Your task to perform on an android device: turn pop-ups on in chrome Image 0: 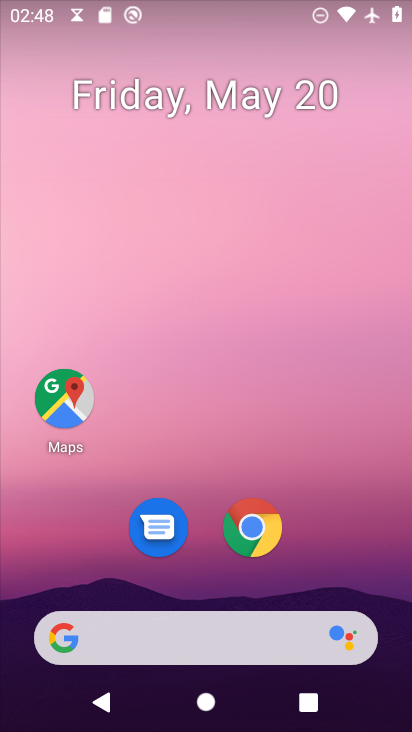
Step 0: press home button
Your task to perform on an android device: turn pop-ups on in chrome Image 1: 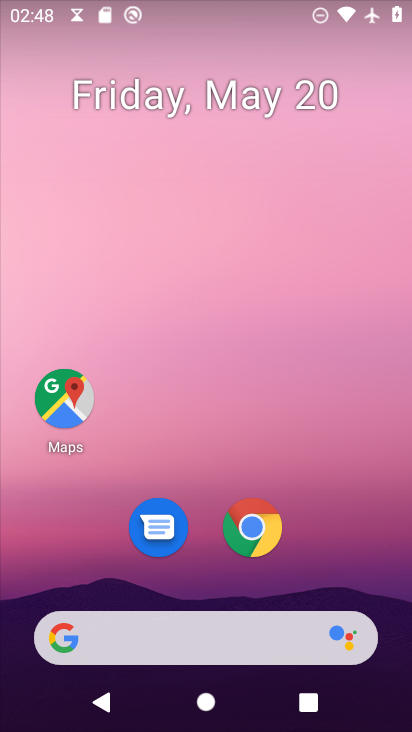
Step 1: click (254, 546)
Your task to perform on an android device: turn pop-ups on in chrome Image 2: 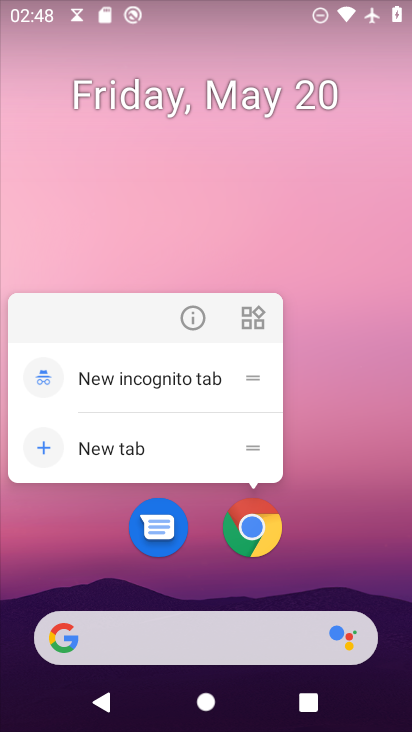
Step 2: click (254, 538)
Your task to perform on an android device: turn pop-ups on in chrome Image 3: 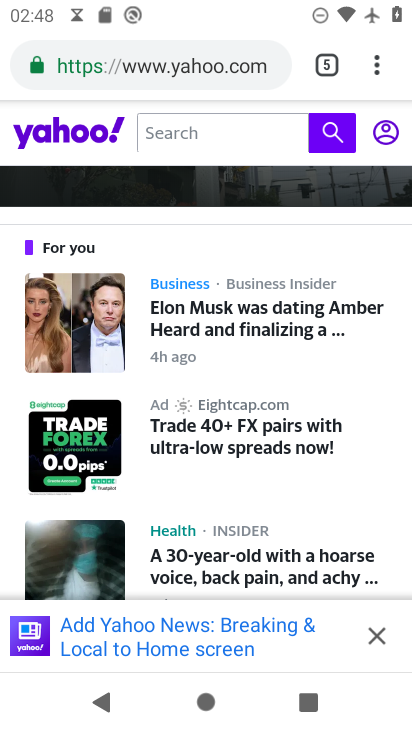
Step 3: drag from (378, 68) to (223, 589)
Your task to perform on an android device: turn pop-ups on in chrome Image 4: 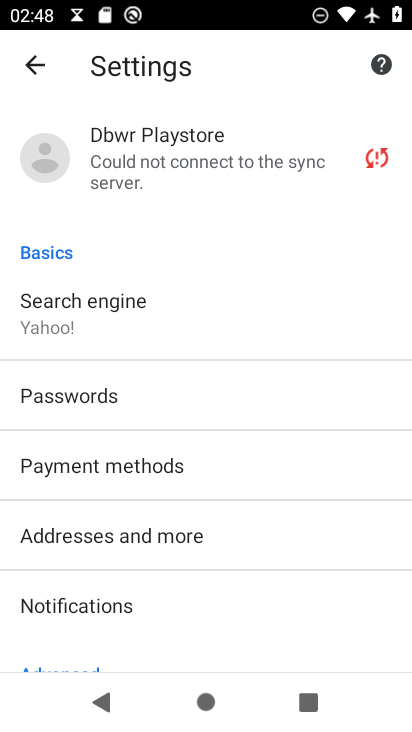
Step 4: drag from (184, 630) to (272, 212)
Your task to perform on an android device: turn pop-ups on in chrome Image 5: 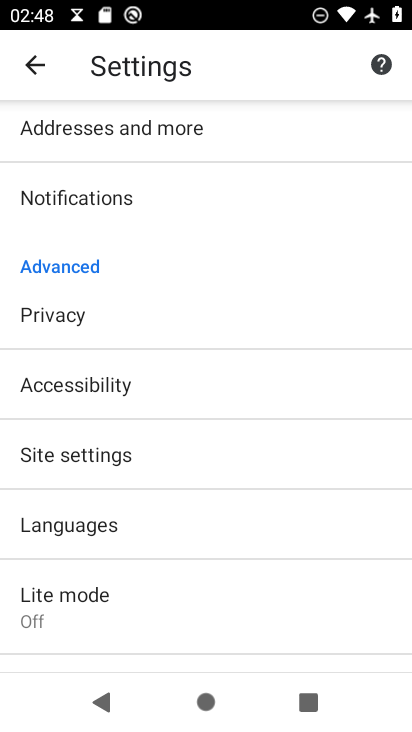
Step 5: click (109, 455)
Your task to perform on an android device: turn pop-ups on in chrome Image 6: 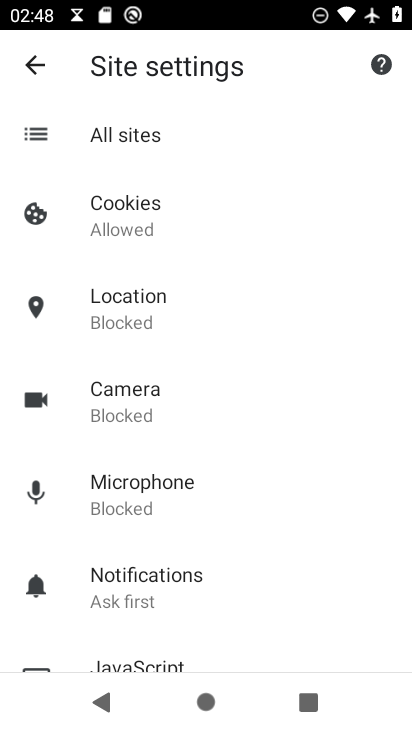
Step 6: drag from (245, 613) to (289, 272)
Your task to perform on an android device: turn pop-ups on in chrome Image 7: 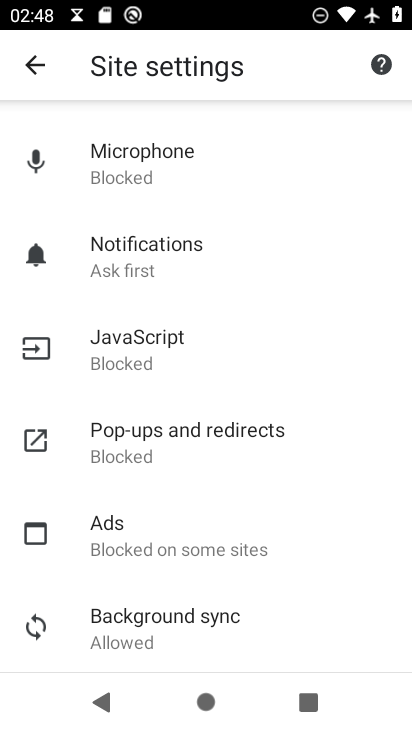
Step 7: click (170, 449)
Your task to perform on an android device: turn pop-ups on in chrome Image 8: 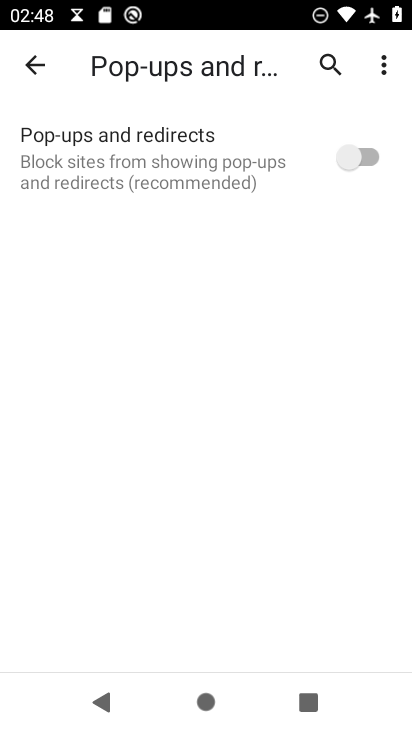
Step 8: click (374, 159)
Your task to perform on an android device: turn pop-ups on in chrome Image 9: 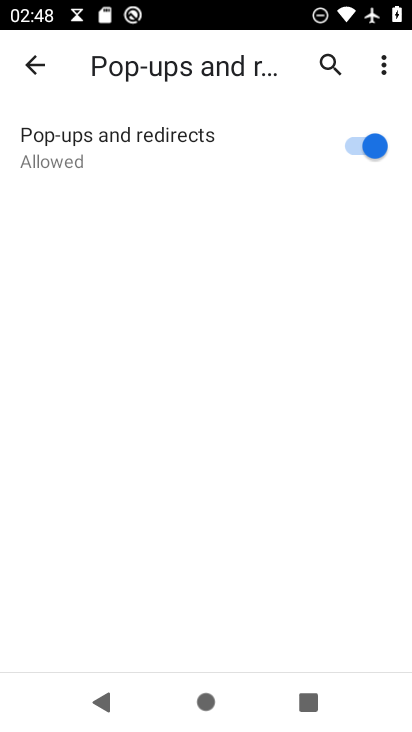
Step 9: task complete